Your task to perform on an android device: Open Google Image 0: 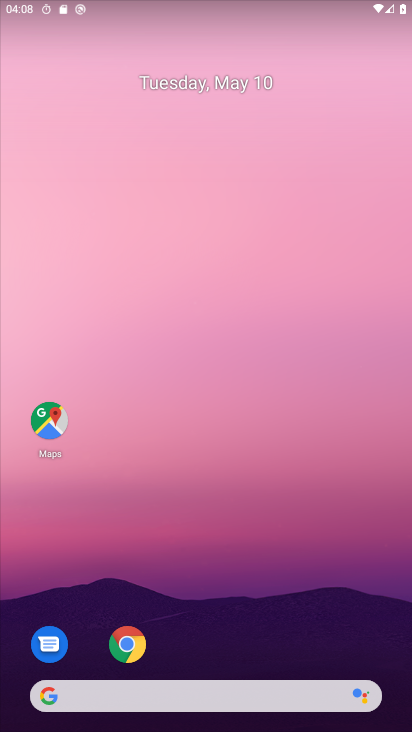
Step 0: drag from (217, 660) to (249, 211)
Your task to perform on an android device: Open Google Image 1: 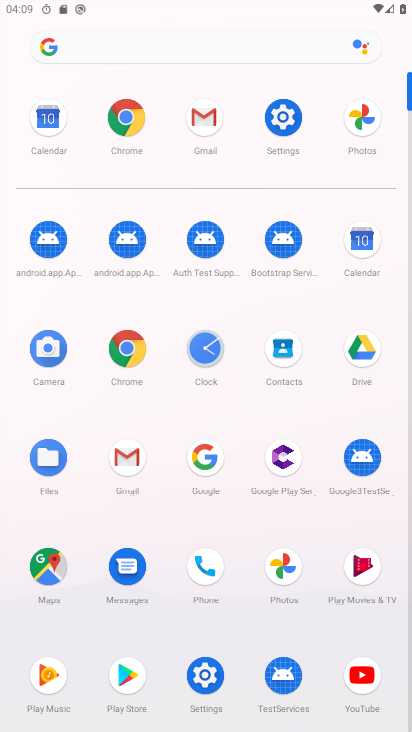
Step 1: click (206, 454)
Your task to perform on an android device: Open Google Image 2: 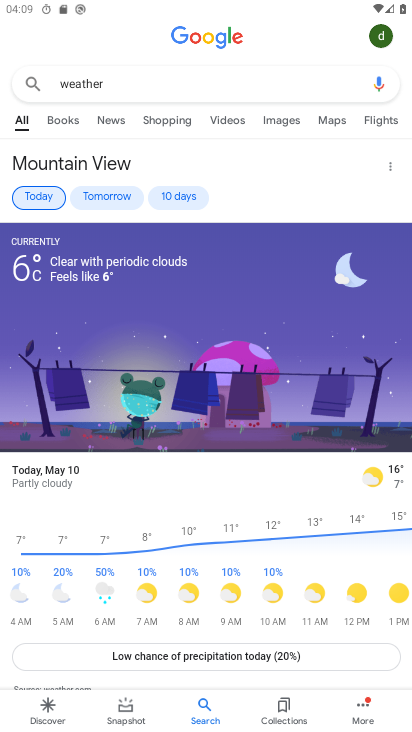
Step 2: task complete